Your task to perform on an android device: turn on the 24-hour format for clock Image 0: 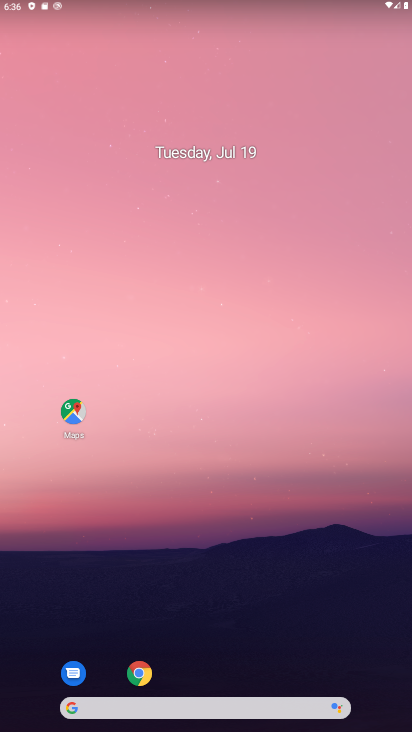
Step 0: drag from (386, 649) to (223, 42)
Your task to perform on an android device: turn on the 24-hour format for clock Image 1: 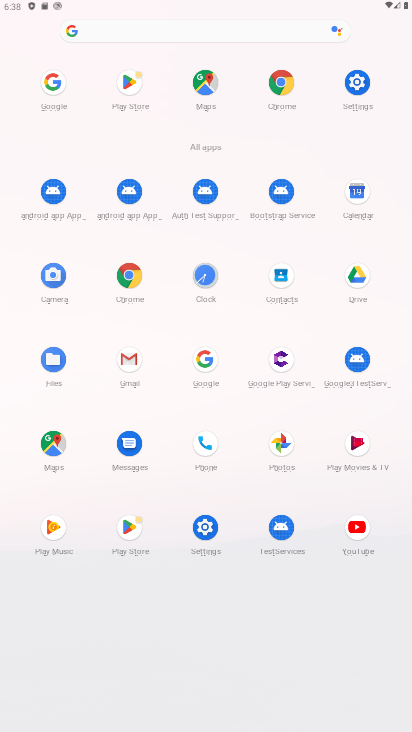
Step 1: click (193, 278)
Your task to perform on an android device: turn on the 24-hour format for clock Image 2: 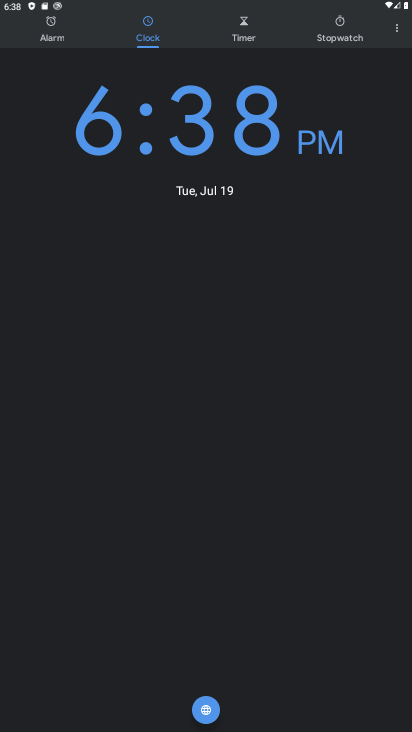
Step 2: click (393, 30)
Your task to perform on an android device: turn on the 24-hour format for clock Image 3: 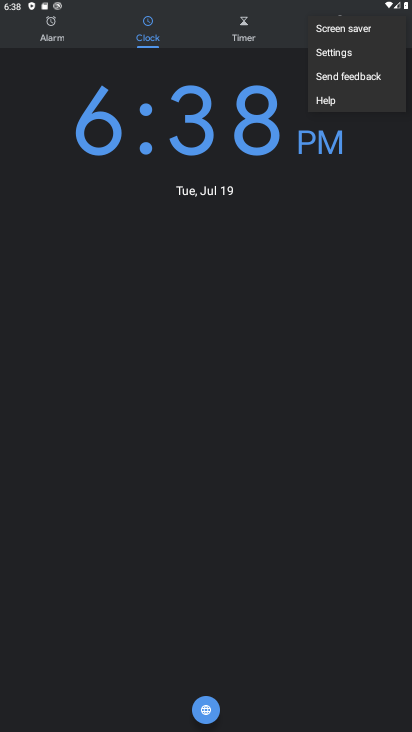
Step 3: click (317, 56)
Your task to perform on an android device: turn on the 24-hour format for clock Image 4: 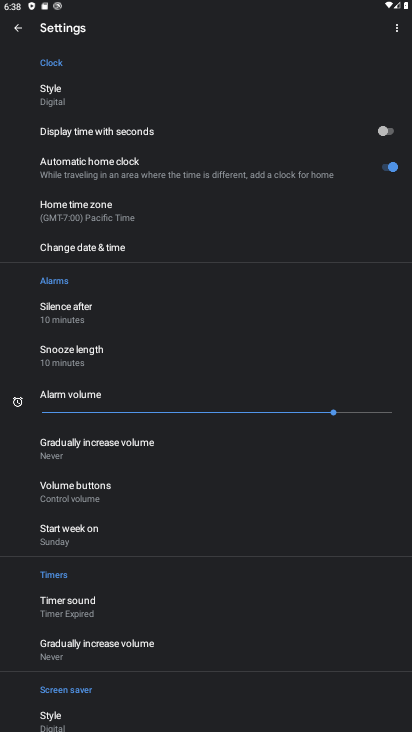
Step 4: click (126, 255)
Your task to perform on an android device: turn on the 24-hour format for clock Image 5: 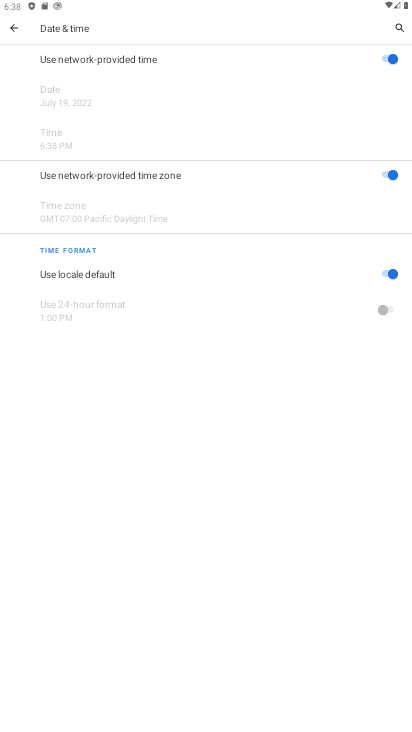
Step 5: task complete